Your task to perform on an android device: turn on priority inbox in the gmail app Image 0: 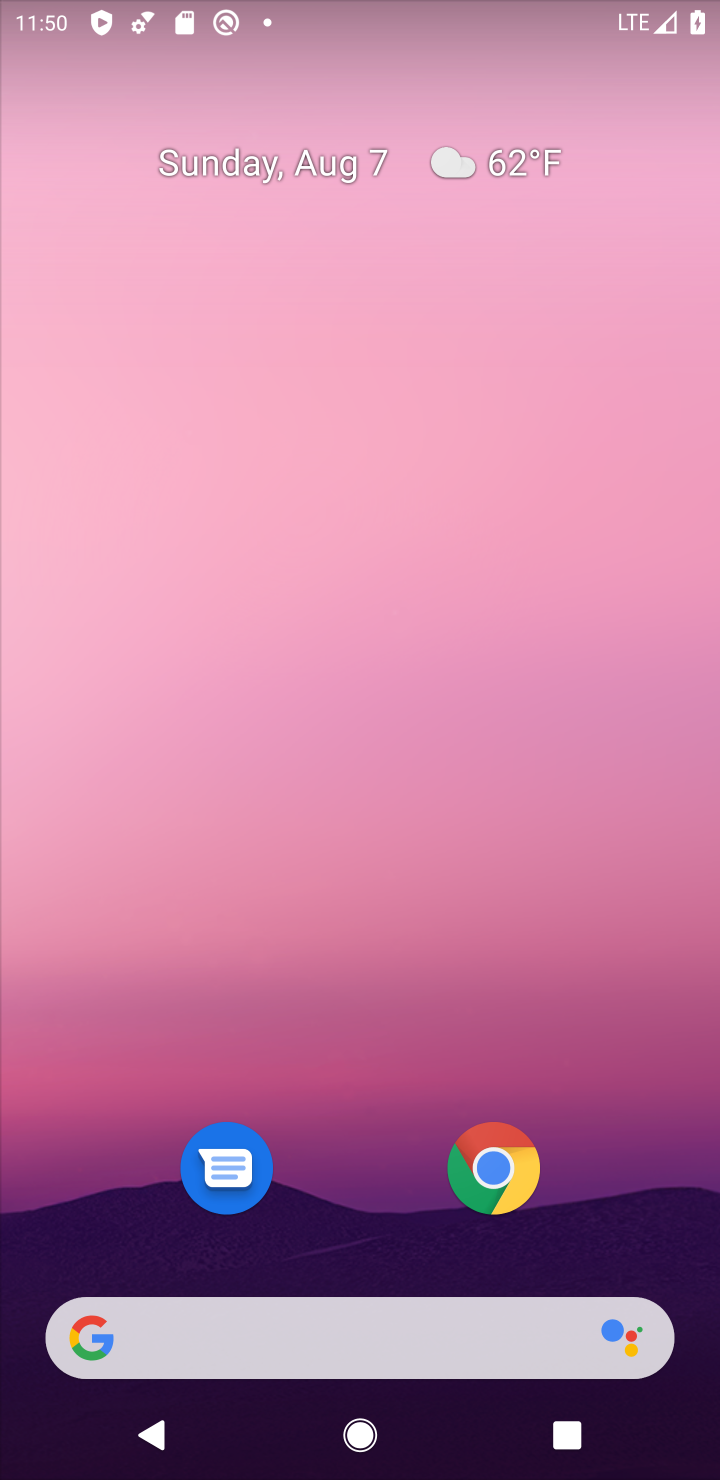
Step 0: press home button
Your task to perform on an android device: turn on priority inbox in the gmail app Image 1: 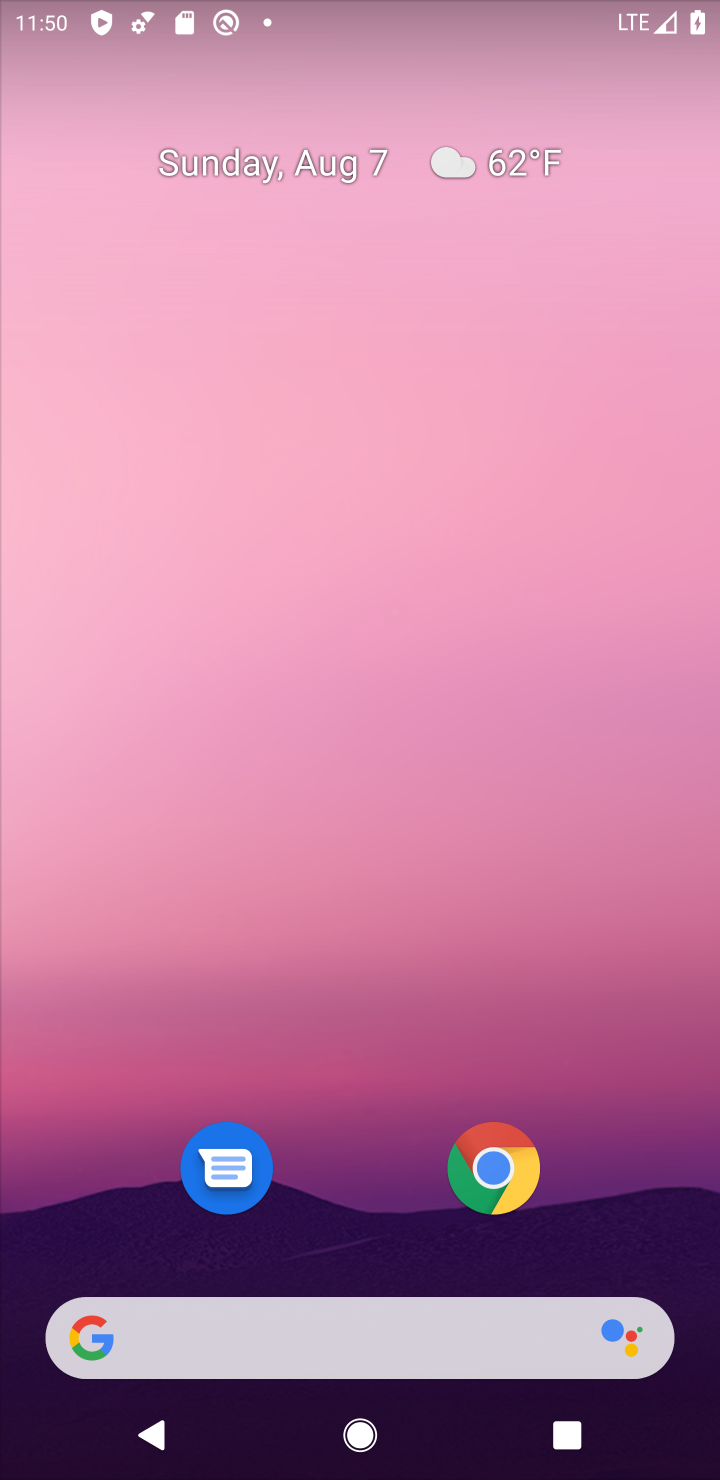
Step 1: drag from (369, 1267) to (437, 166)
Your task to perform on an android device: turn on priority inbox in the gmail app Image 2: 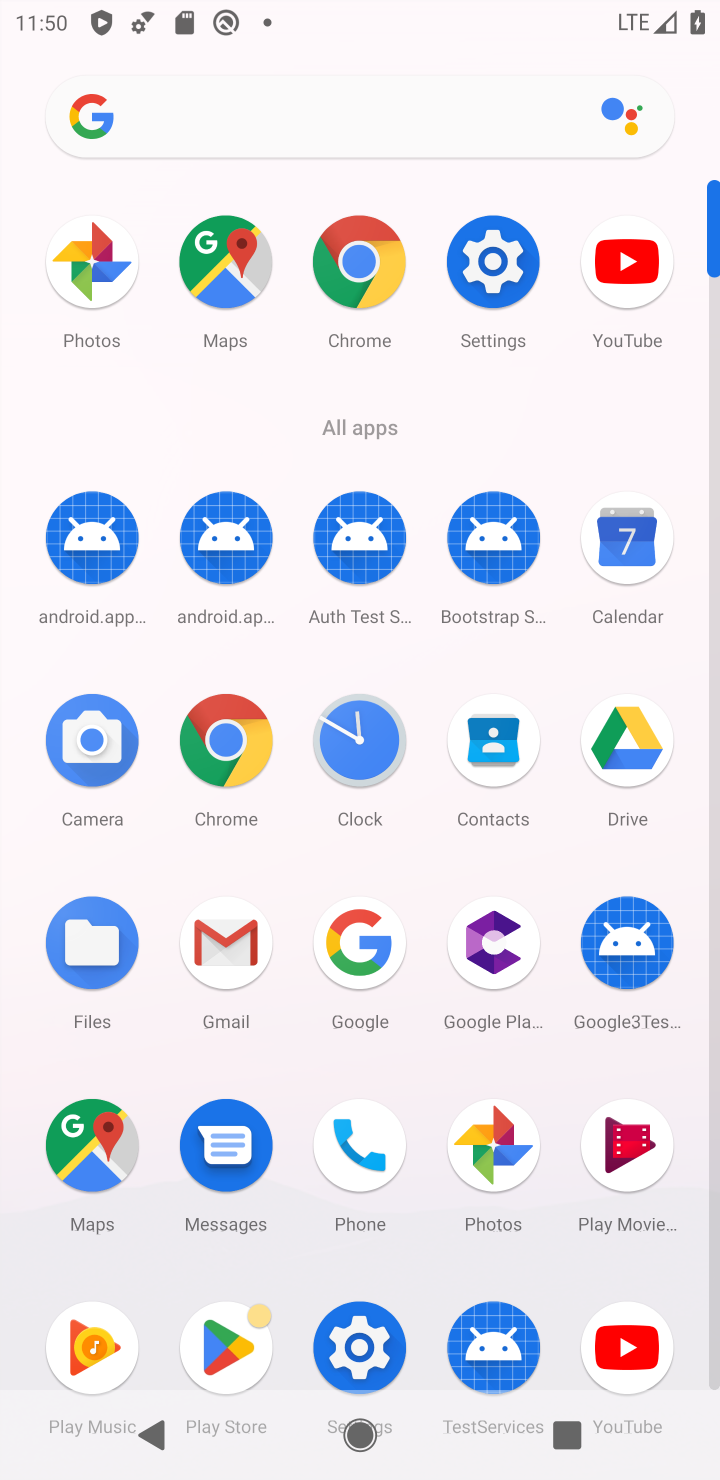
Step 2: click (231, 948)
Your task to perform on an android device: turn on priority inbox in the gmail app Image 3: 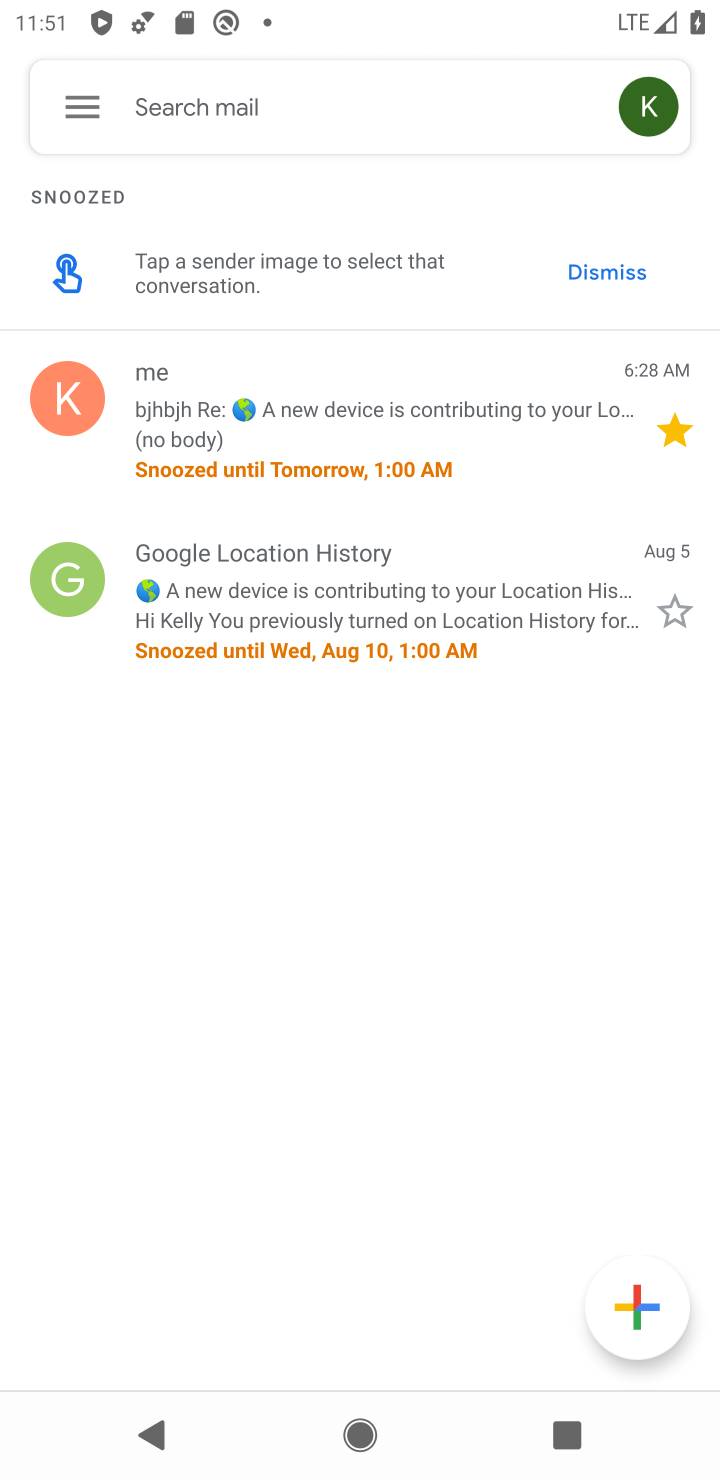
Step 3: click (68, 97)
Your task to perform on an android device: turn on priority inbox in the gmail app Image 4: 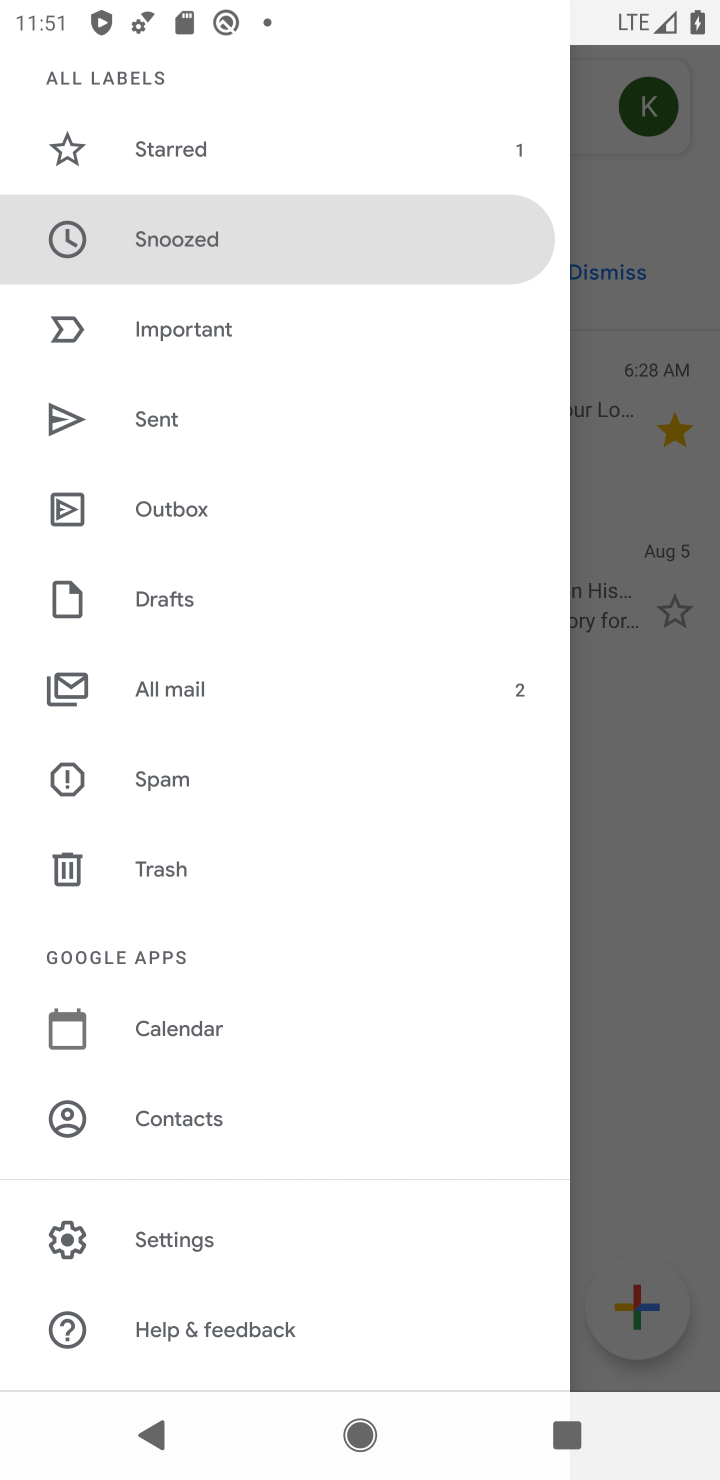
Step 4: click (191, 1237)
Your task to perform on an android device: turn on priority inbox in the gmail app Image 5: 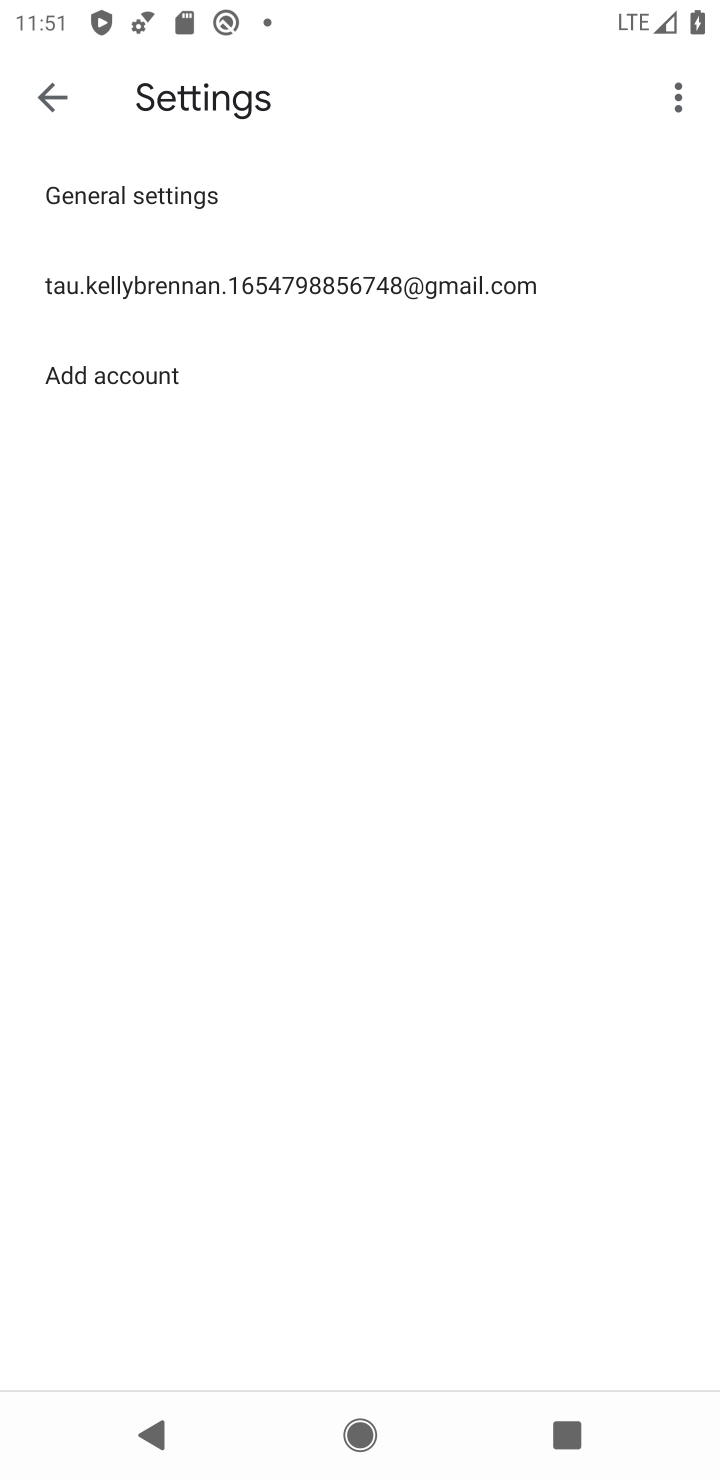
Step 5: click (238, 288)
Your task to perform on an android device: turn on priority inbox in the gmail app Image 6: 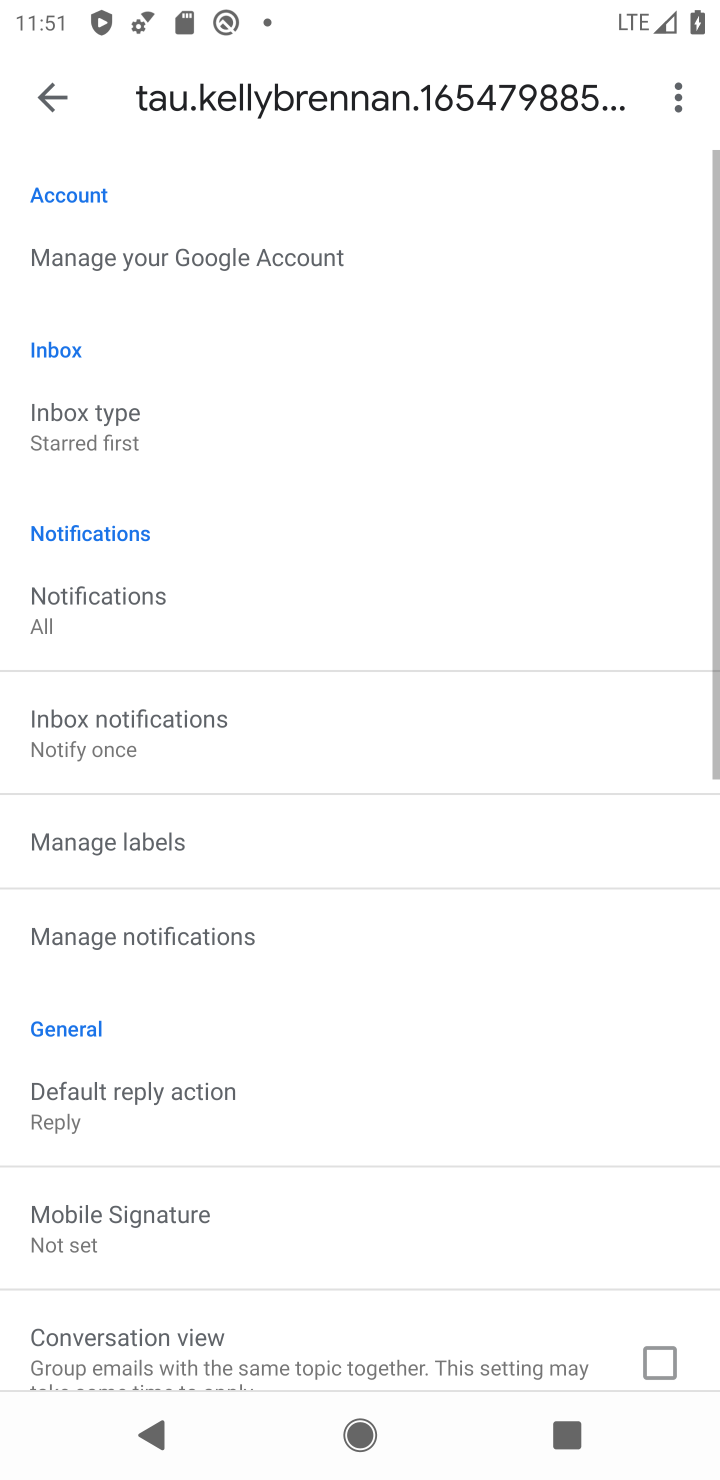
Step 6: click (84, 425)
Your task to perform on an android device: turn on priority inbox in the gmail app Image 7: 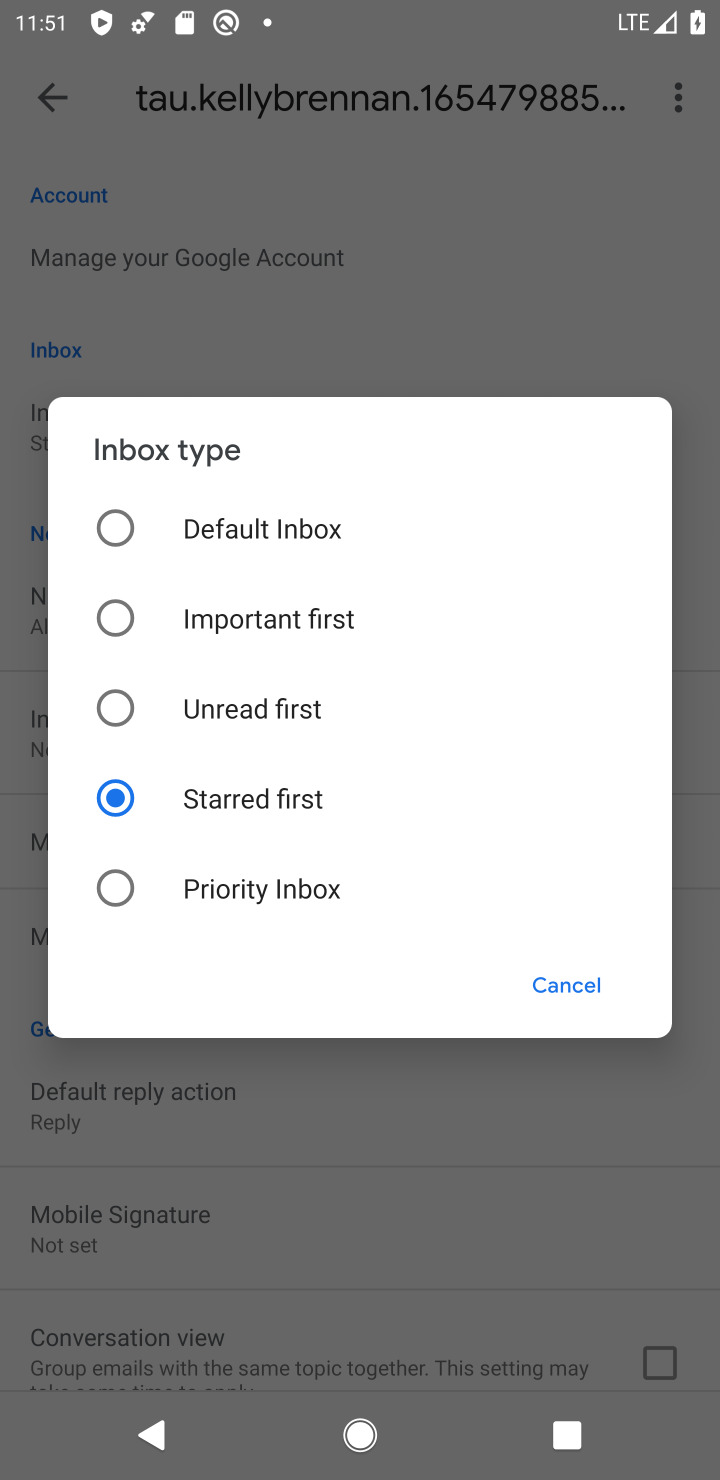
Step 7: click (121, 897)
Your task to perform on an android device: turn on priority inbox in the gmail app Image 8: 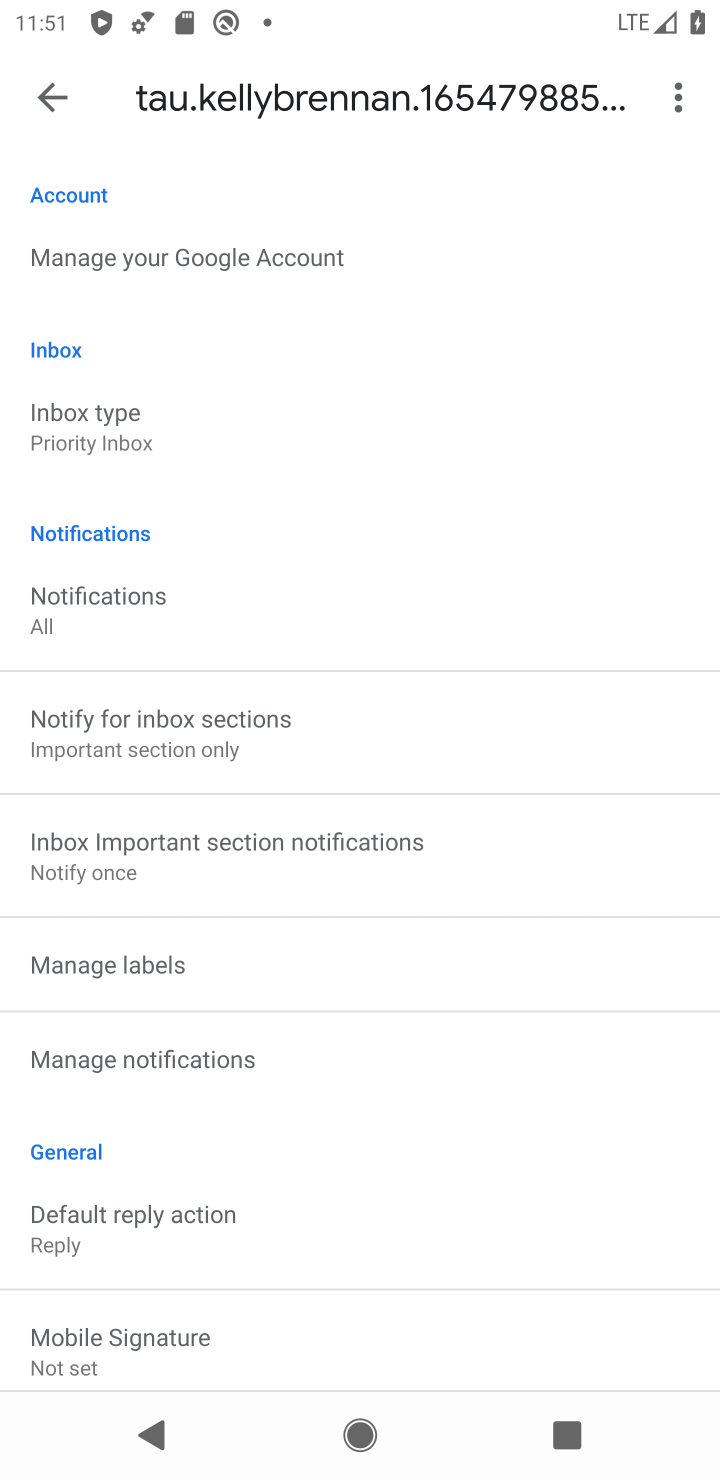
Step 8: task complete